Your task to perform on an android device: Open maps Image 0: 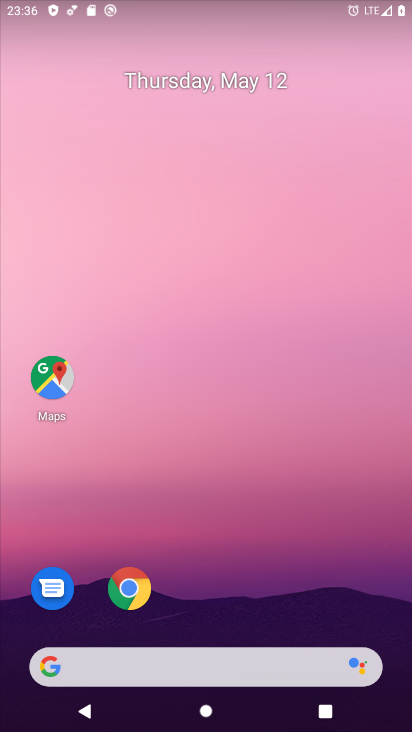
Step 0: drag from (174, 610) to (205, 90)
Your task to perform on an android device: Open maps Image 1: 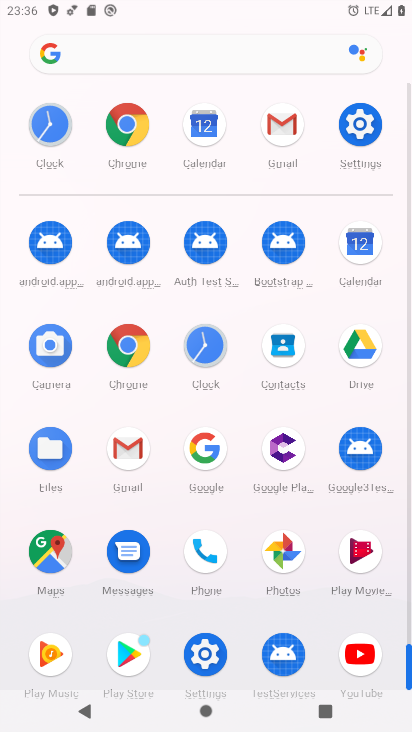
Step 1: click (37, 536)
Your task to perform on an android device: Open maps Image 2: 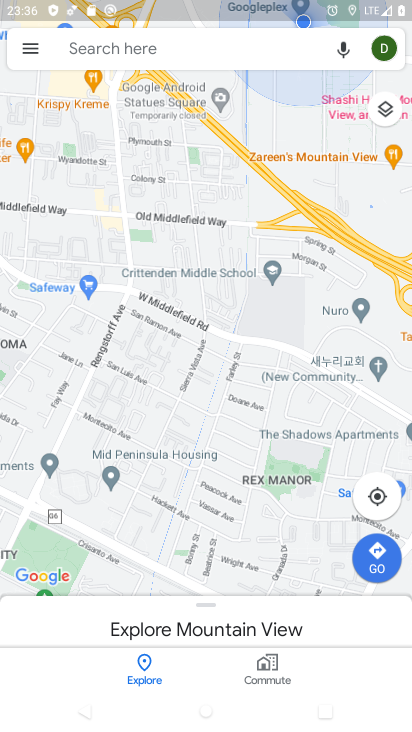
Step 2: task complete